Your task to perform on an android device: show emergency info Image 0: 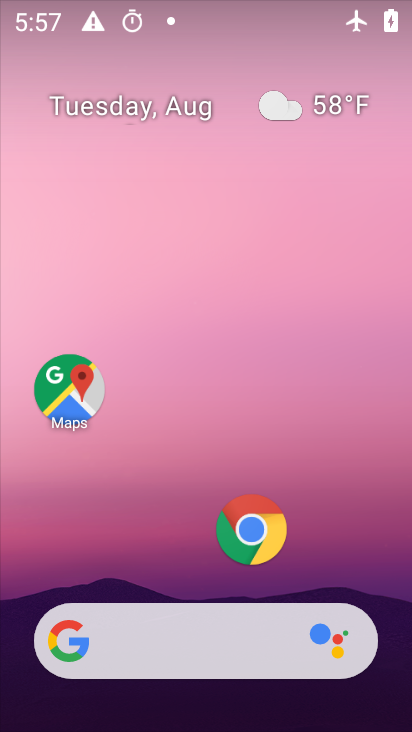
Step 0: drag from (173, 548) to (174, 192)
Your task to perform on an android device: show emergency info Image 1: 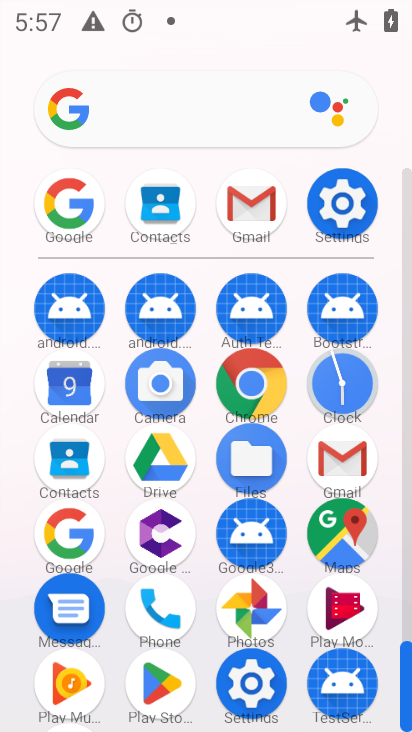
Step 1: click (323, 183)
Your task to perform on an android device: show emergency info Image 2: 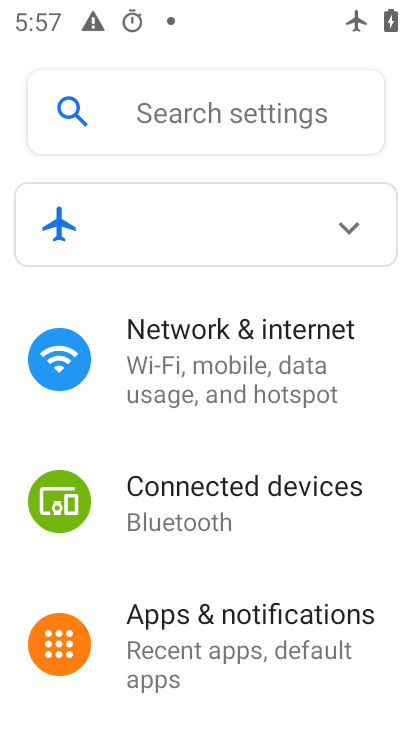
Step 2: drag from (245, 639) to (258, 297)
Your task to perform on an android device: show emergency info Image 3: 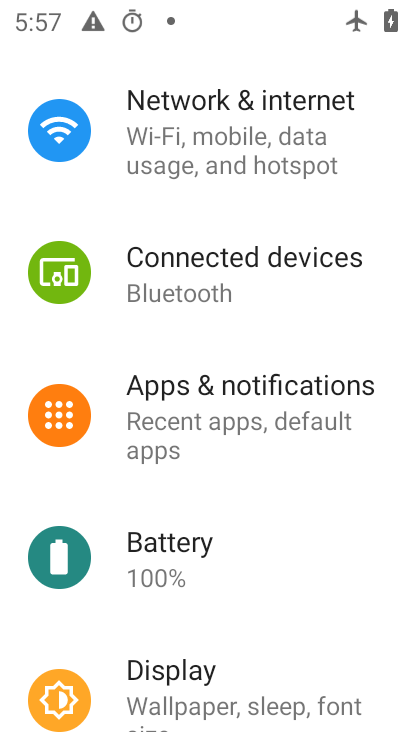
Step 3: drag from (332, 592) to (321, 217)
Your task to perform on an android device: show emergency info Image 4: 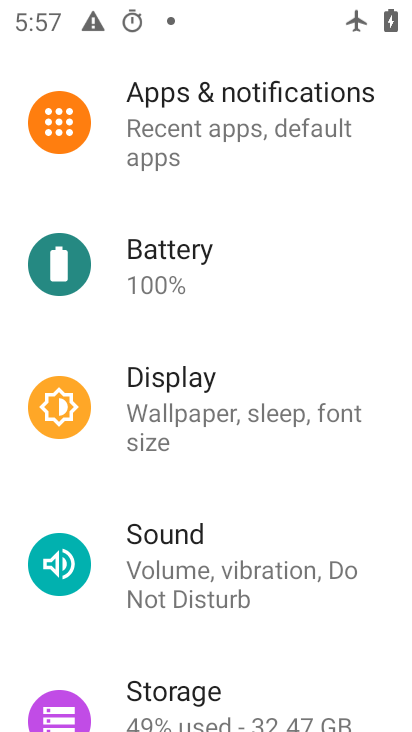
Step 4: drag from (282, 620) to (282, 165)
Your task to perform on an android device: show emergency info Image 5: 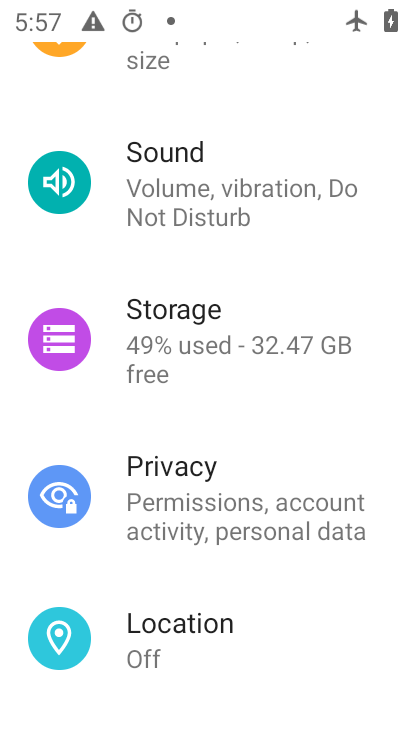
Step 5: drag from (225, 628) to (235, 175)
Your task to perform on an android device: show emergency info Image 6: 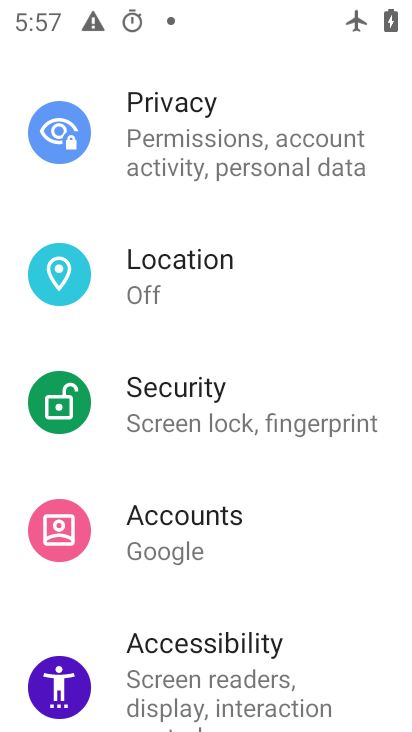
Step 6: drag from (218, 616) to (233, 212)
Your task to perform on an android device: show emergency info Image 7: 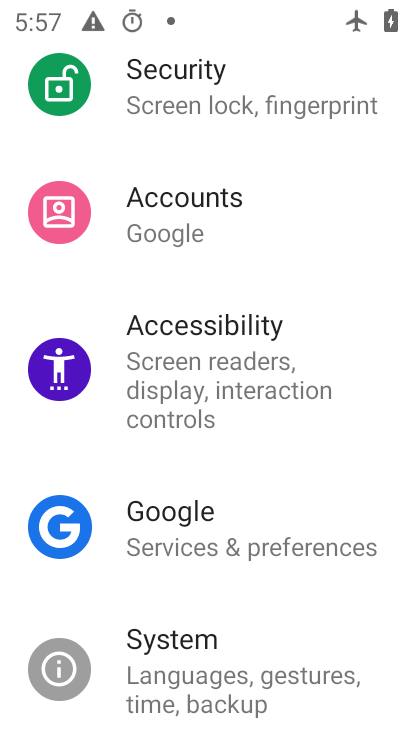
Step 7: drag from (238, 526) to (278, 190)
Your task to perform on an android device: show emergency info Image 8: 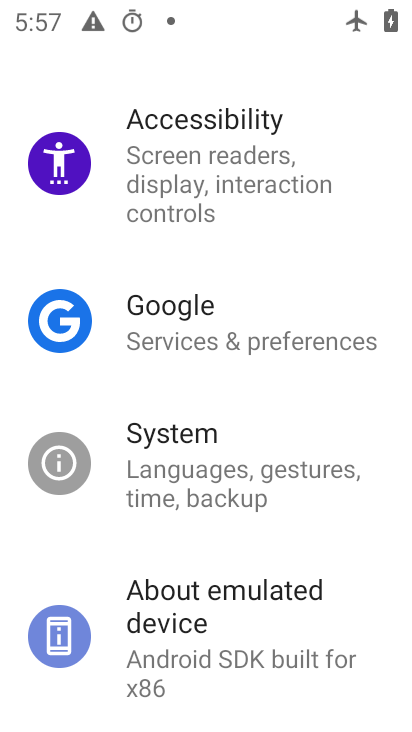
Step 8: click (236, 609)
Your task to perform on an android device: show emergency info Image 9: 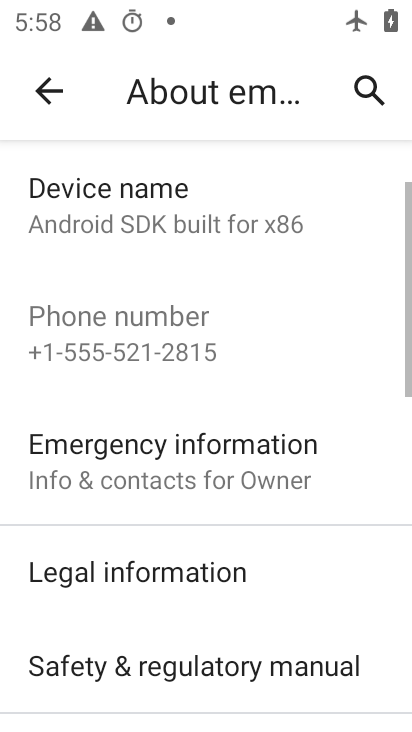
Step 9: click (254, 434)
Your task to perform on an android device: show emergency info Image 10: 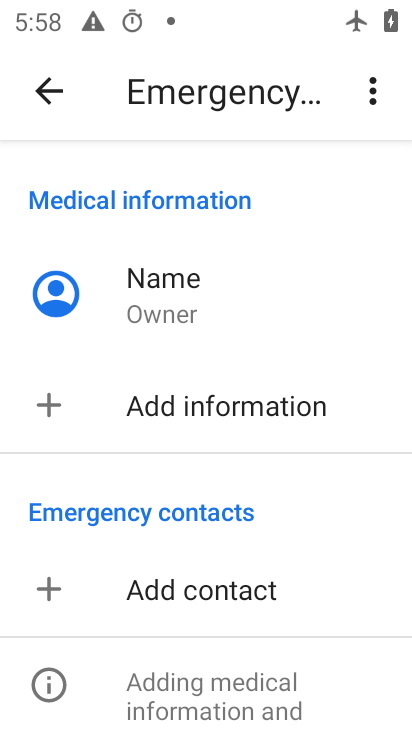
Step 10: task complete